Your task to perform on an android device: Open accessibility settings Image 0: 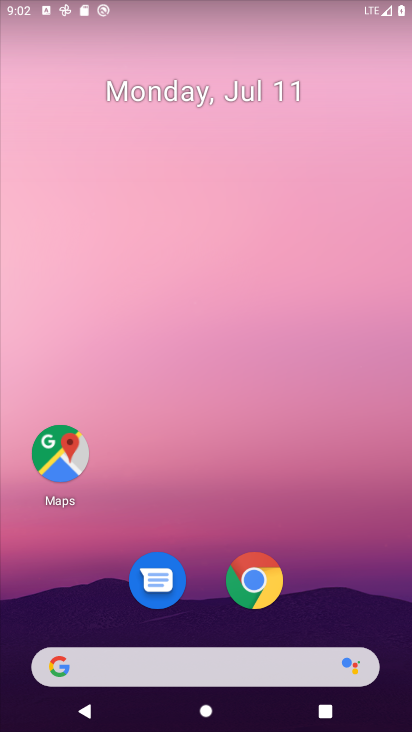
Step 0: drag from (347, 542) to (320, 2)
Your task to perform on an android device: Open accessibility settings Image 1: 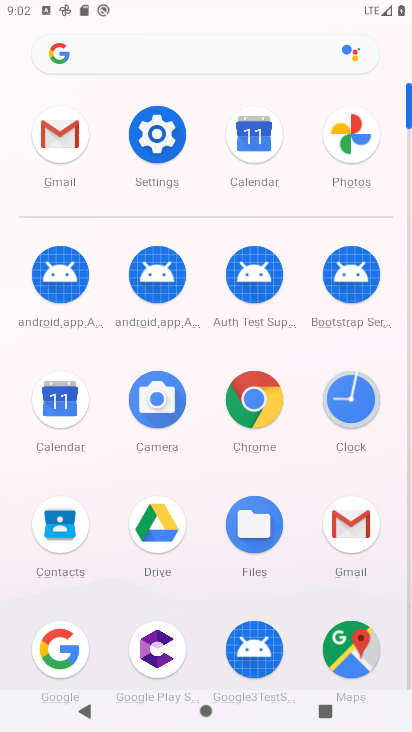
Step 1: click (176, 131)
Your task to perform on an android device: Open accessibility settings Image 2: 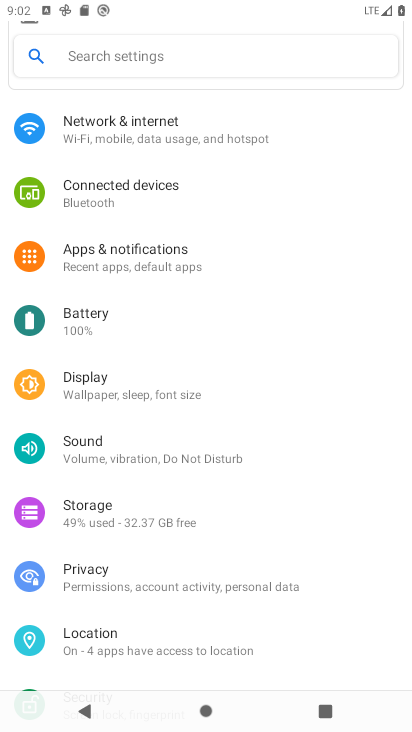
Step 2: drag from (187, 598) to (239, 208)
Your task to perform on an android device: Open accessibility settings Image 3: 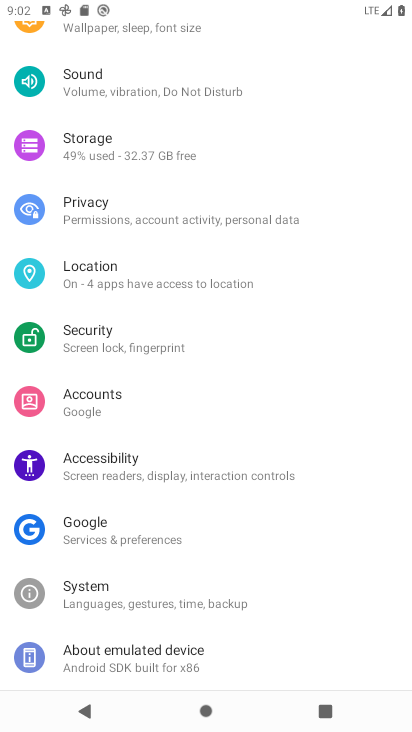
Step 3: click (200, 465)
Your task to perform on an android device: Open accessibility settings Image 4: 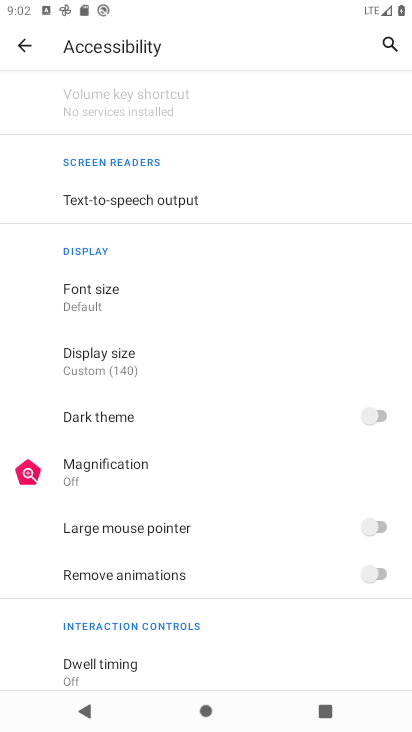
Step 4: task complete